Your task to perform on an android device: turn off javascript in the chrome app Image 0: 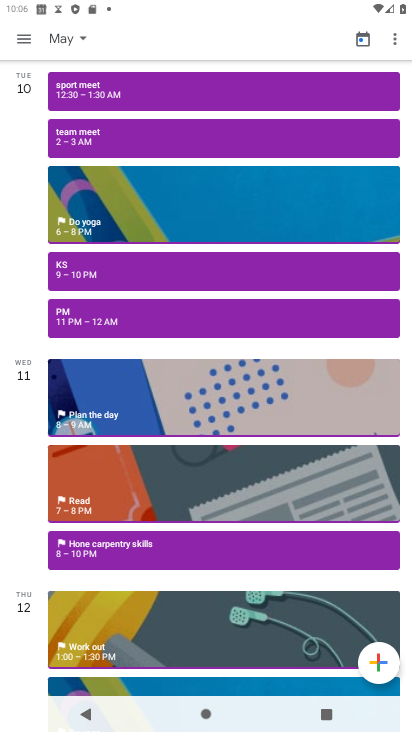
Step 0: press home button
Your task to perform on an android device: turn off javascript in the chrome app Image 1: 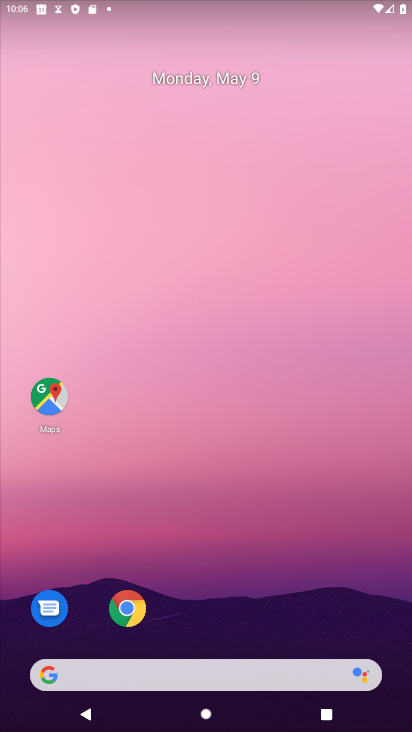
Step 1: click (134, 614)
Your task to perform on an android device: turn off javascript in the chrome app Image 2: 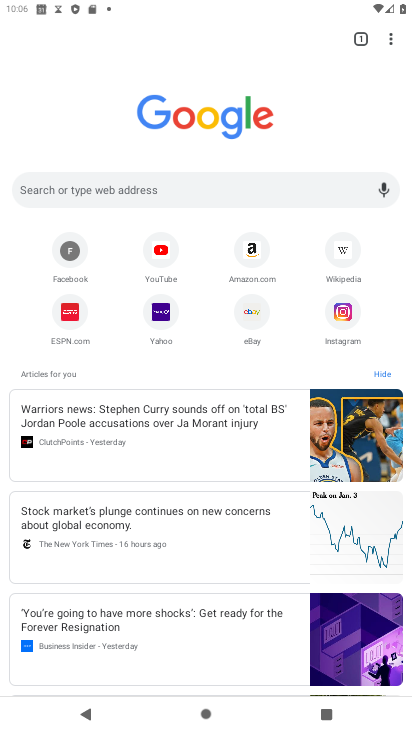
Step 2: click (395, 40)
Your task to perform on an android device: turn off javascript in the chrome app Image 3: 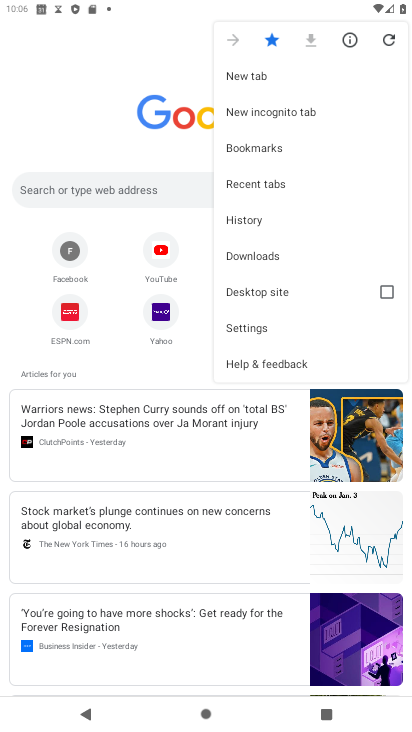
Step 3: click (259, 334)
Your task to perform on an android device: turn off javascript in the chrome app Image 4: 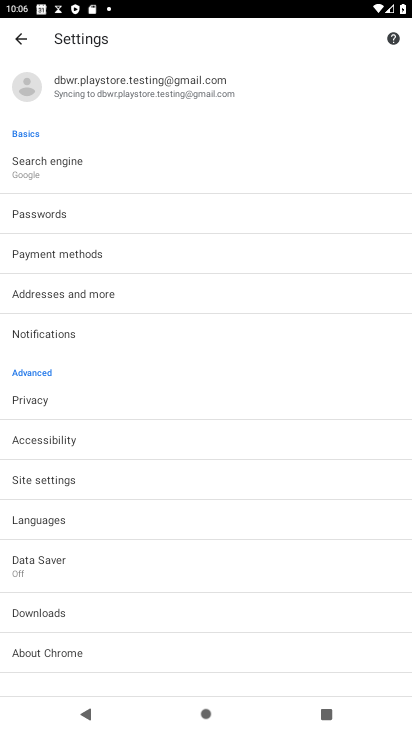
Step 4: click (81, 483)
Your task to perform on an android device: turn off javascript in the chrome app Image 5: 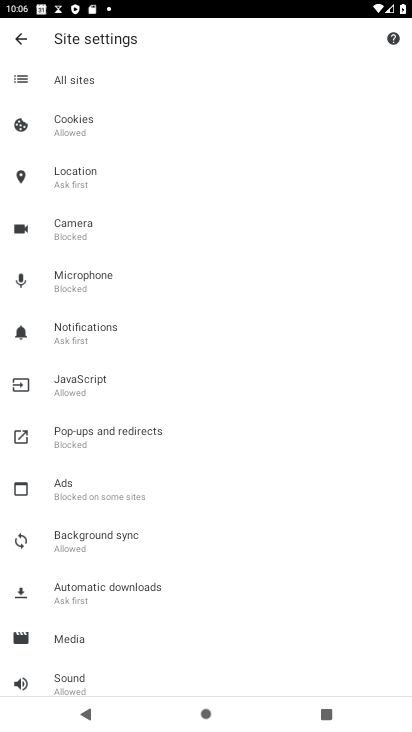
Step 5: click (110, 382)
Your task to perform on an android device: turn off javascript in the chrome app Image 6: 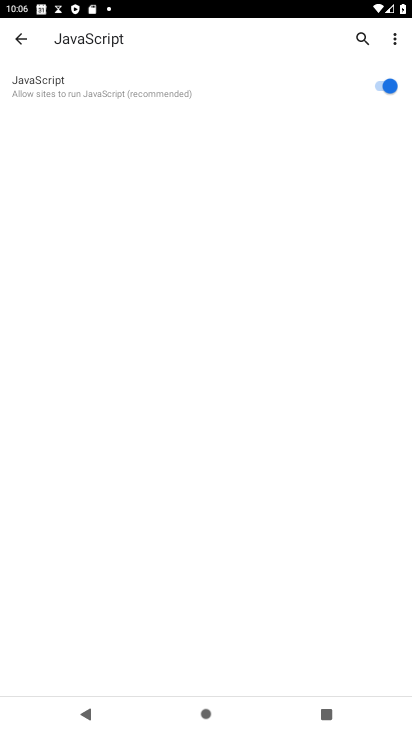
Step 6: click (377, 77)
Your task to perform on an android device: turn off javascript in the chrome app Image 7: 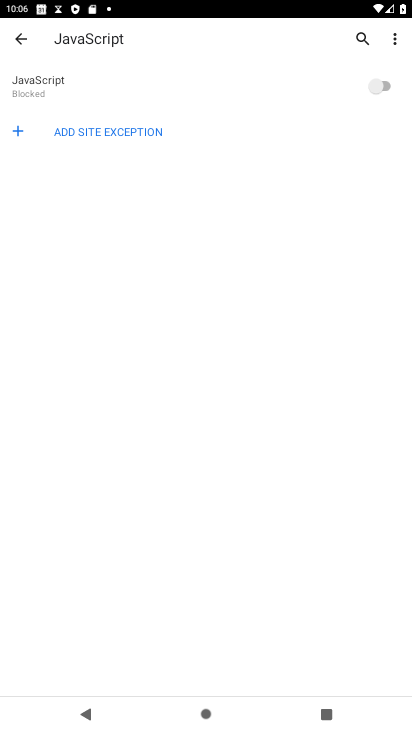
Step 7: task complete